Your task to perform on an android device: change the clock display to show seconds Image 0: 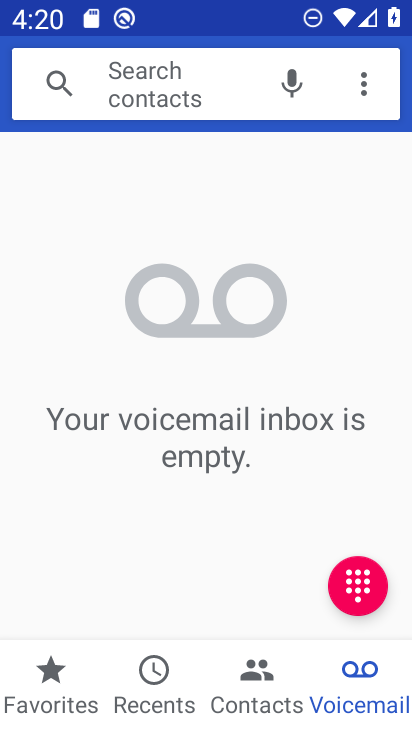
Step 0: press home button
Your task to perform on an android device: change the clock display to show seconds Image 1: 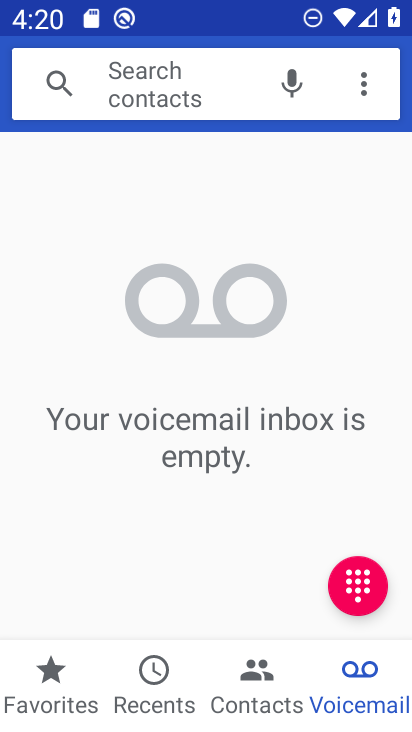
Step 1: press home button
Your task to perform on an android device: change the clock display to show seconds Image 2: 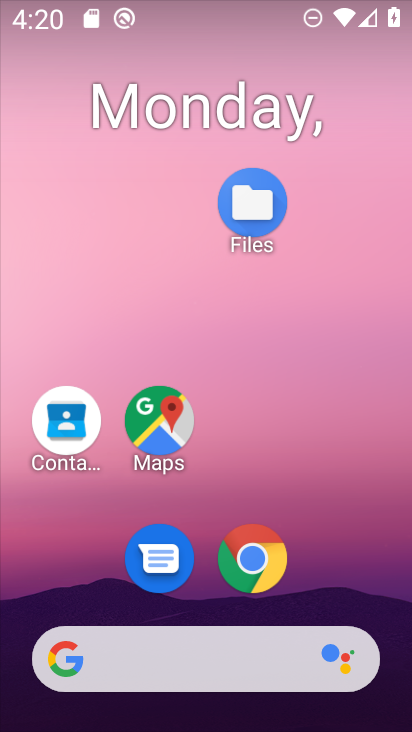
Step 2: drag from (271, 653) to (276, 177)
Your task to perform on an android device: change the clock display to show seconds Image 3: 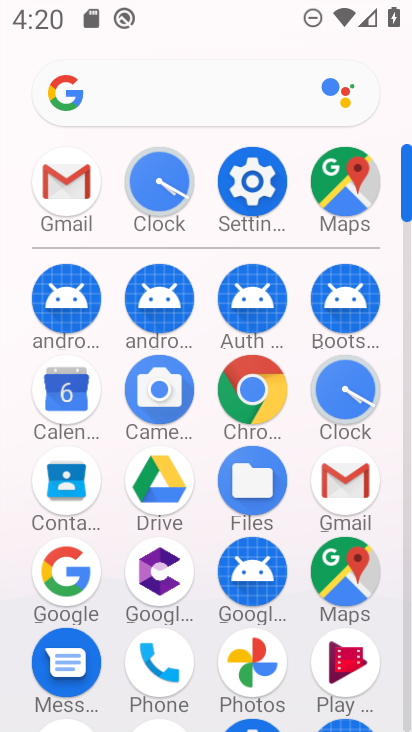
Step 3: click (341, 404)
Your task to perform on an android device: change the clock display to show seconds Image 4: 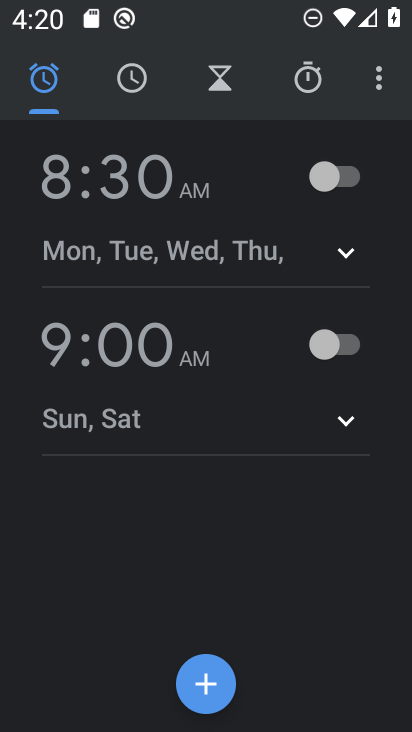
Step 4: click (379, 97)
Your task to perform on an android device: change the clock display to show seconds Image 5: 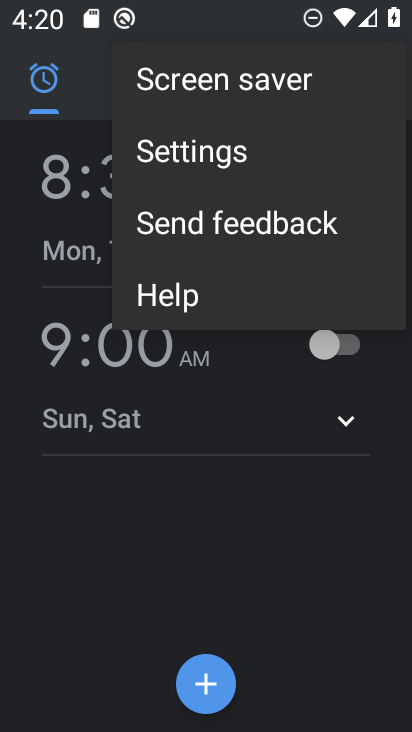
Step 5: click (238, 175)
Your task to perform on an android device: change the clock display to show seconds Image 6: 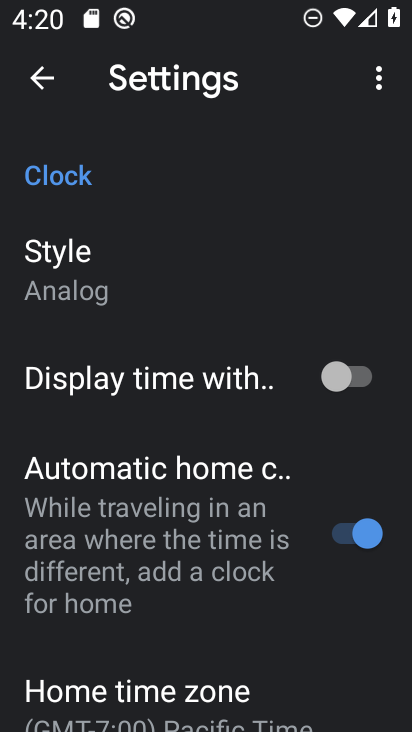
Step 6: click (222, 374)
Your task to perform on an android device: change the clock display to show seconds Image 7: 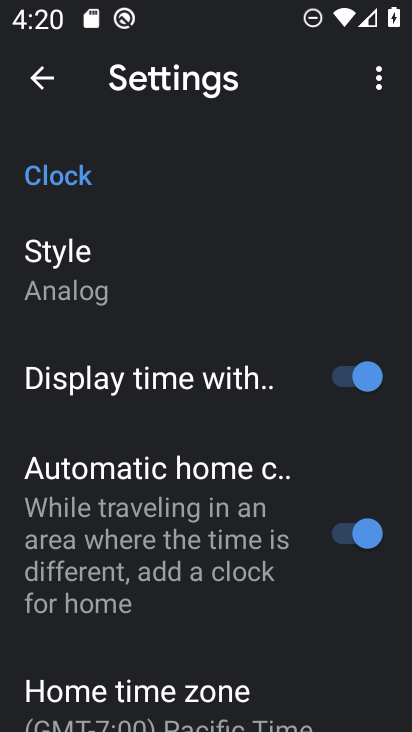
Step 7: task complete